Your task to perform on an android device: Do I have any events today? Image 0: 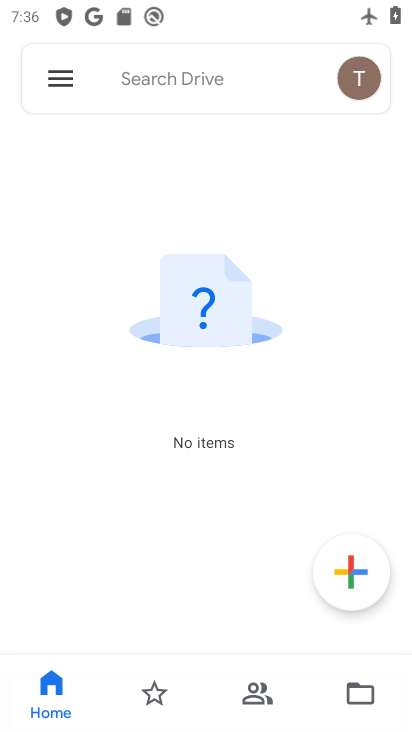
Step 0: press home button
Your task to perform on an android device: Do I have any events today? Image 1: 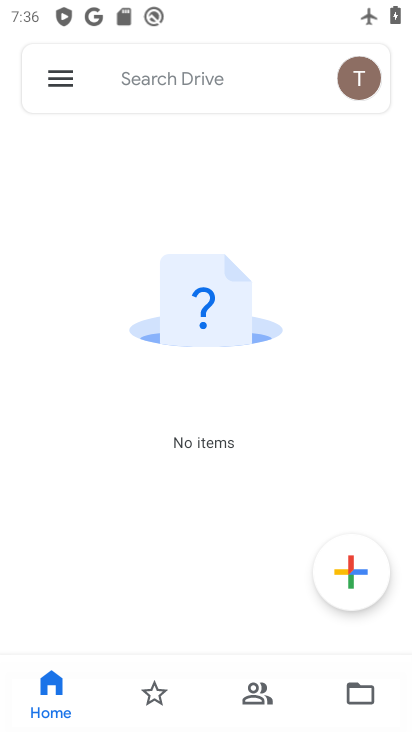
Step 1: press home button
Your task to perform on an android device: Do I have any events today? Image 2: 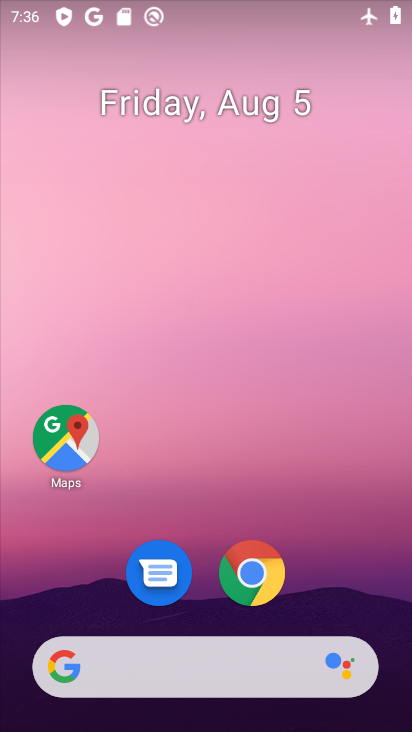
Step 2: drag from (209, 504) to (253, 0)
Your task to perform on an android device: Do I have any events today? Image 3: 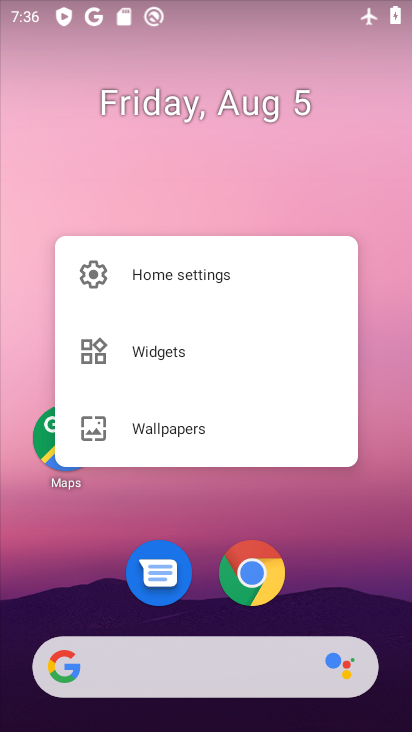
Step 3: click (382, 499)
Your task to perform on an android device: Do I have any events today? Image 4: 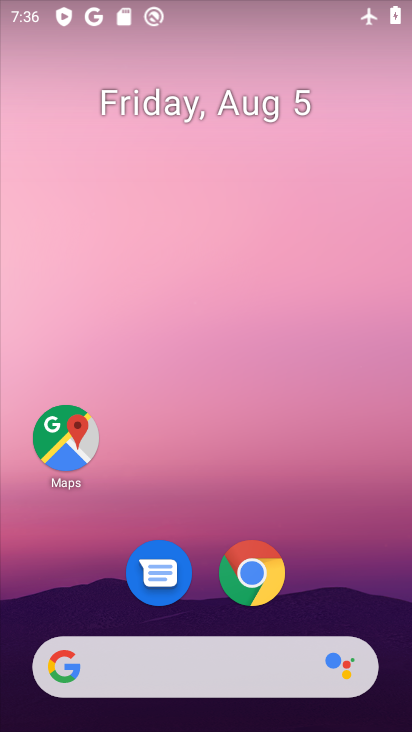
Step 4: drag from (329, 529) to (325, 0)
Your task to perform on an android device: Do I have any events today? Image 5: 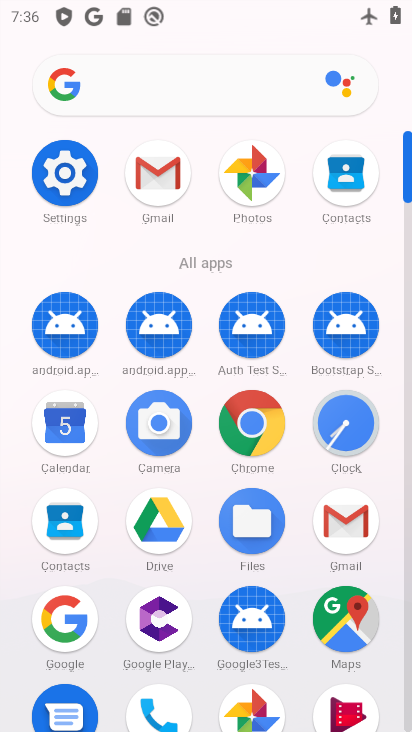
Step 5: click (78, 426)
Your task to perform on an android device: Do I have any events today? Image 6: 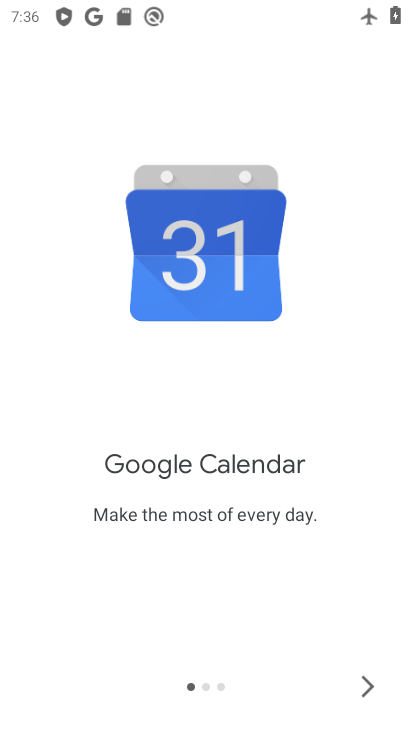
Step 6: click (363, 678)
Your task to perform on an android device: Do I have any events today? Image 7: 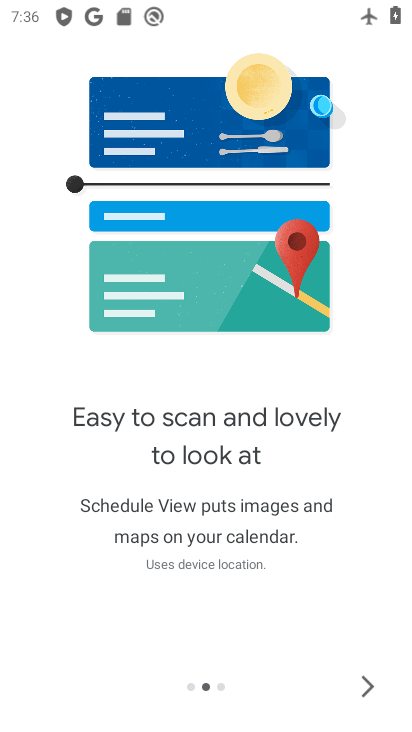
Step 7: click (364, 678)
Your task to perform on an android device: Do I have any events today? Image 8: 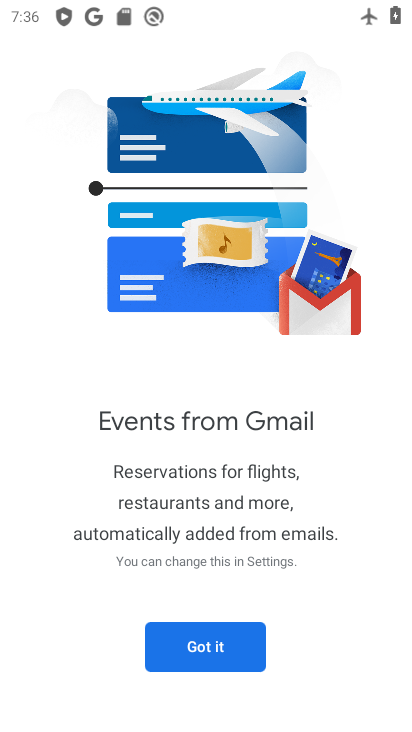
Step 8: click (257, 643)
Your task to perform on an android device: Do I have any events today? Image 9: 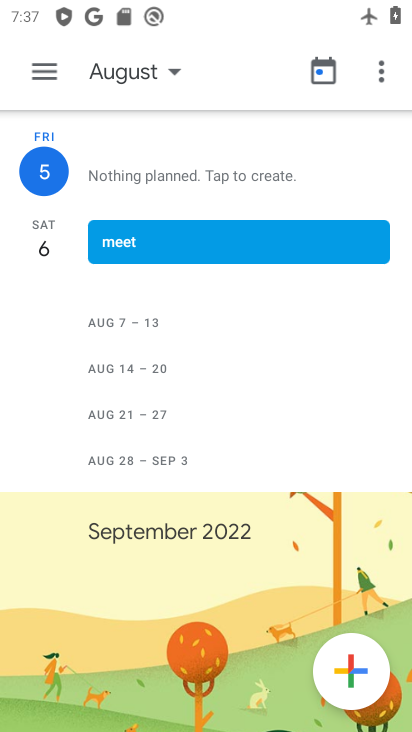
Step 9: task complete